Your task to perform on an android device: check android version Image 0: 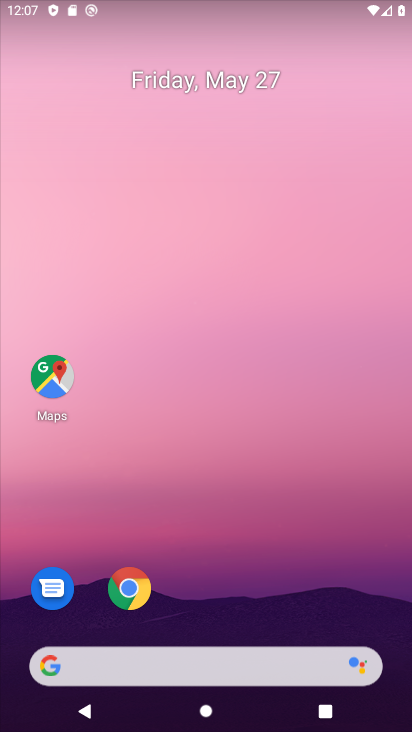
Step 0: drag from (223, 621) to (227, 52)
Your task to perform on an android device: check android version Image 1: 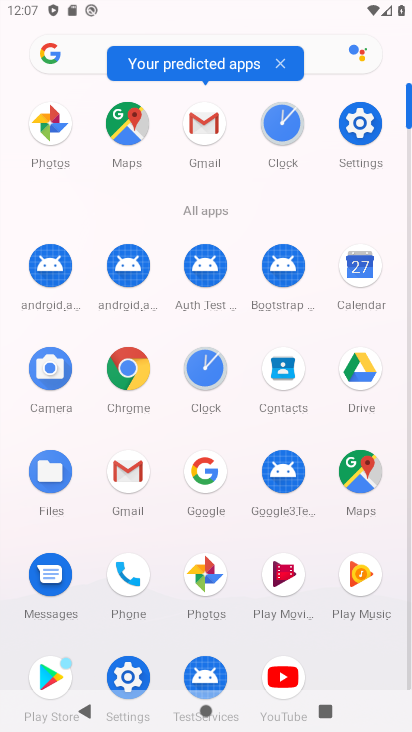
Step 1: click (357, 122)
Your task to perform on an android device: check android version Image 2: 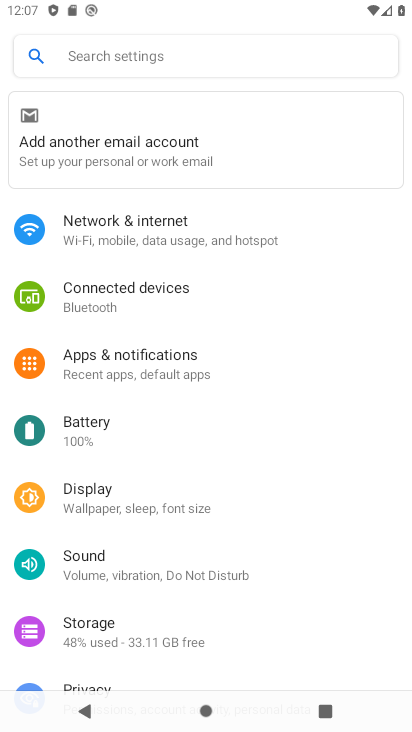
Step 2: drag from (171, 643) to (173, 51)
Your task to perform on an android device: check android version Image 3: 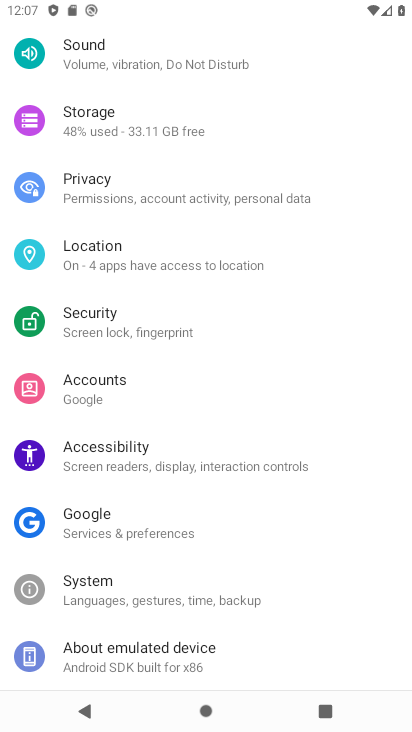
Step 3: click (130, 658)
Your task to perform on an android device: check android version Image 4: 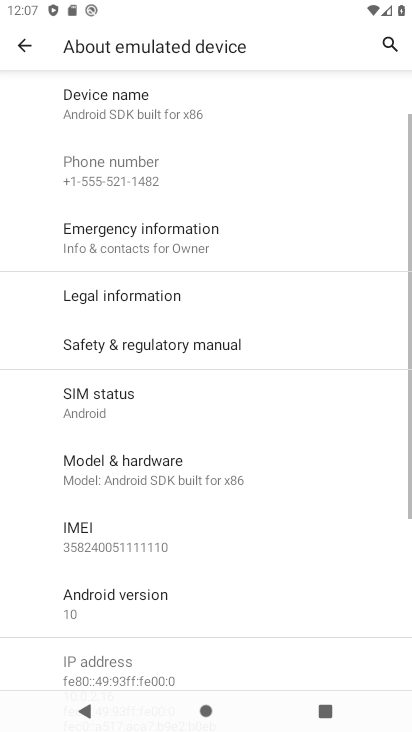
Step 4: click (143, 607)
Your task to perform on an android device: check android version Image 5: 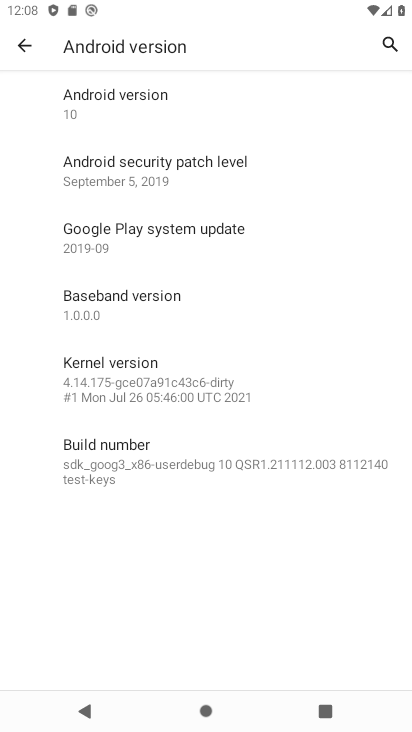
Step 5: task complete